Your task to perform on an android device: Open sound settings Image 0: 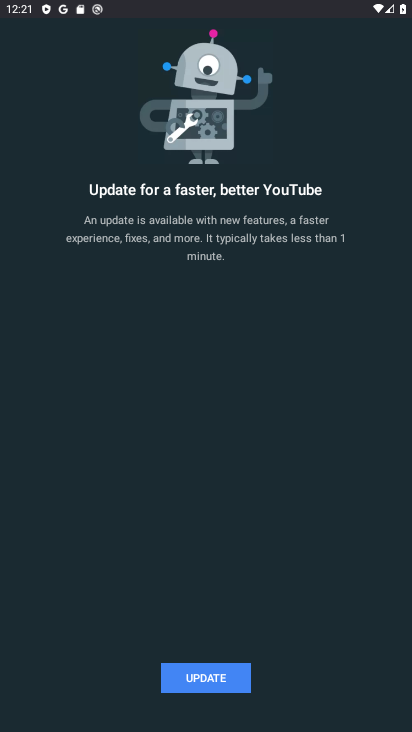
Step 0: press home button
Your task to perform on an android device: Open sound settings Image 1: 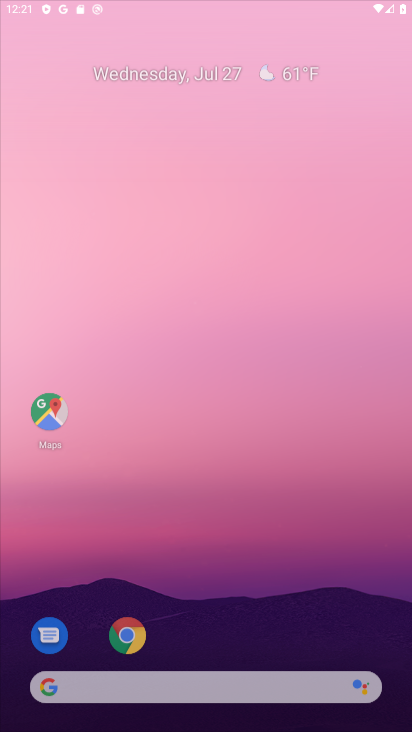
Step 1: drag from (271, 579) to (345, 0)
Your task to perform on an android device: Open sound settings Image 2: 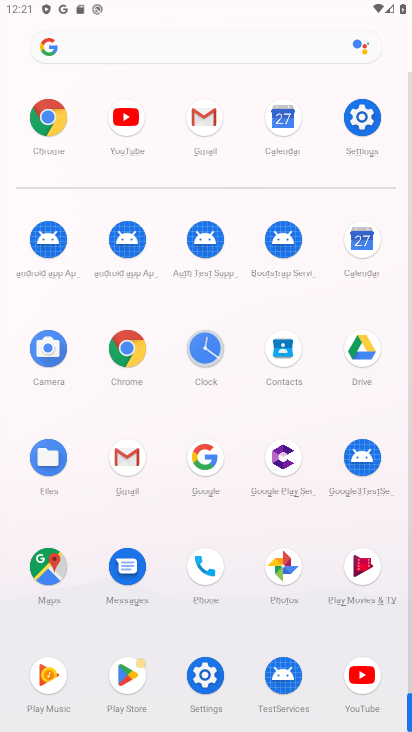
Step 2: drag from (216, 609) to (316, 99)
Your task to perform on an android device: Open sound settings Image 3: 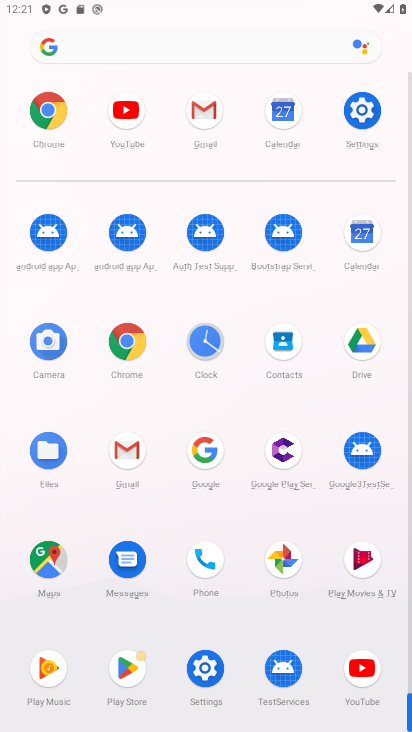
Step 3: click (218, 662)
Your task to perform on an android device: Open sound settings Image 4: 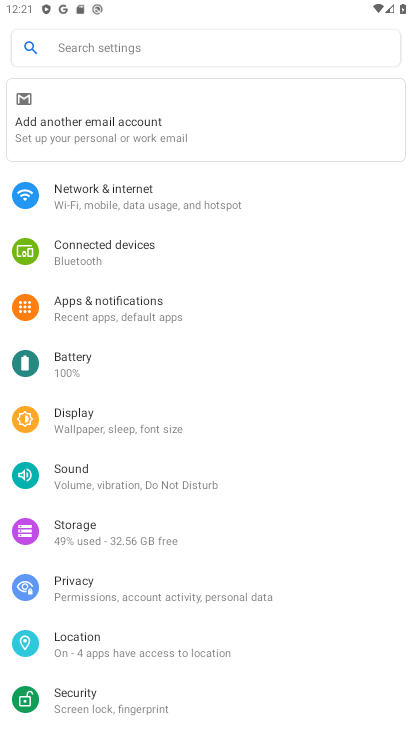
Step 4: click (94, 475)
Your task to perform on an android device: Open sound settings Image 5: 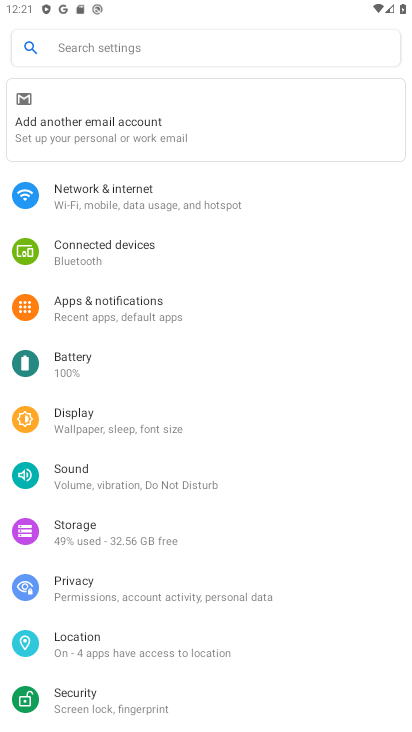
Step 5: click (94, 475)
Your task to perform on an android device: Open sound settings Image 6: 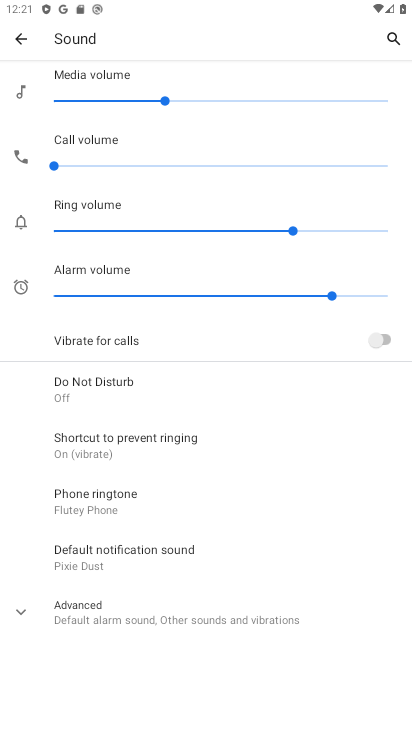
Step 6: task complete